Your task to perform on an android device: What's on my calendar tomorrow? Image 0: 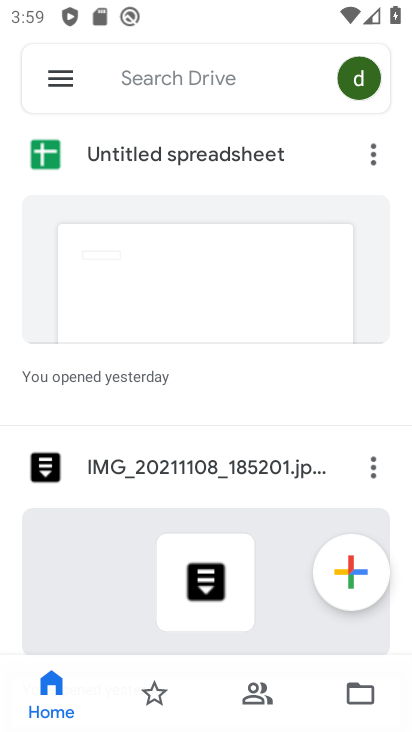
Step 0: press home button
Your task to perform on an android device: What's on my calendar tomorrow? Image 1: 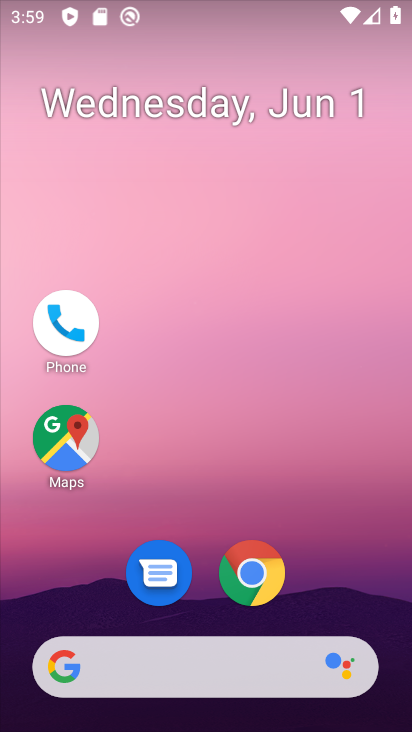
Step 1: click (222, 120)
Your task to perform on an android device: What's on my calendar tomorrow? Image 2: 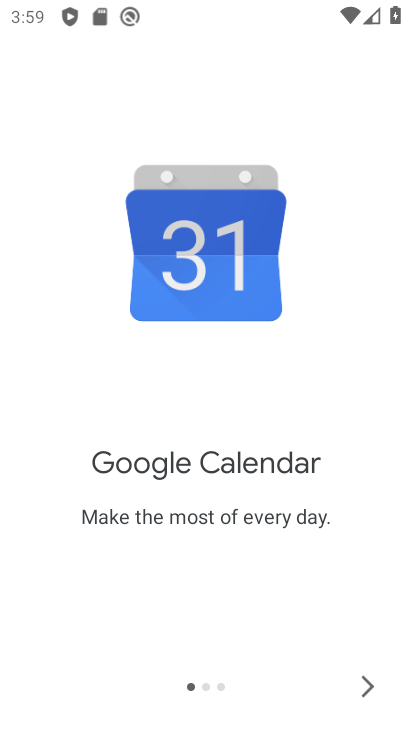
Step 2: click (374, 691)
Your task to perform on an android device: What's on my calendar tomorrow? Image 3: 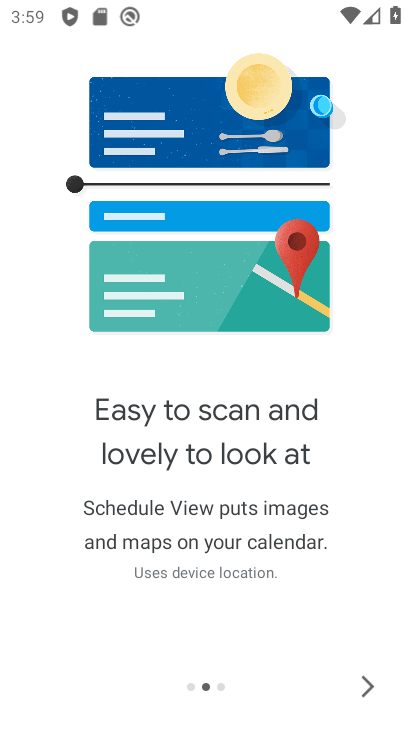
Step 3: click (374, 691)
Your task to perform on an android device: What's on my calendar tomorrow? Image 4: 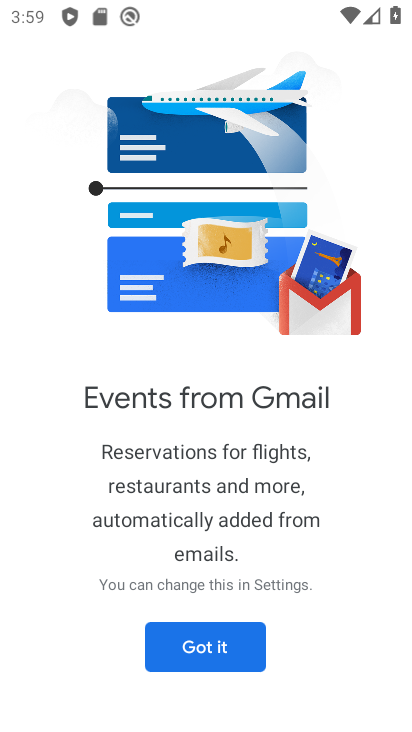
Step 4: click (216, 633)
Your task to perform on an android device: What's on my calendar tomorrow? Image 5: 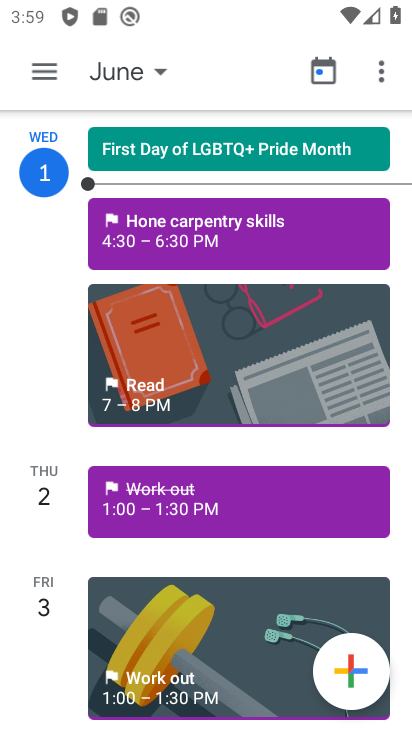
Step 5: click (103, 76)
Your task to perform on an android device: What's on my calendar tomorrow? Image 6: 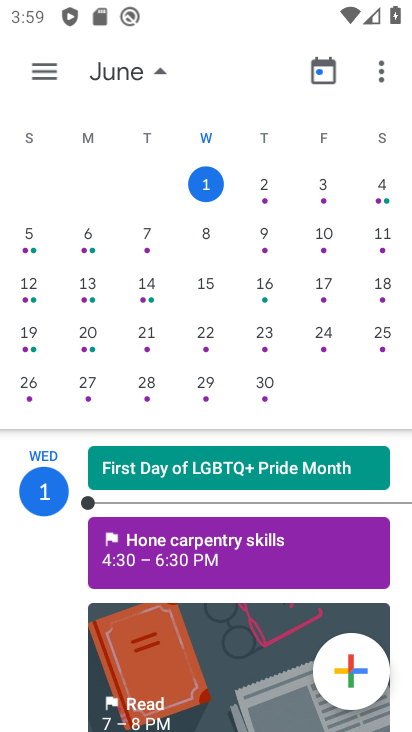
Step 6: click (265, 171)
Your task to perform on an android device: What's on my calendar tomorrow? Image 7: 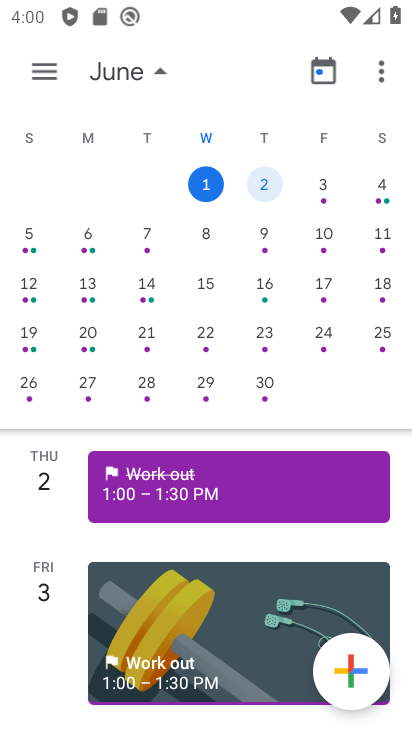
Step 7: click (270, 186)
Your task to perform on an android device: What's on my calendar tomorrow? Image 8: 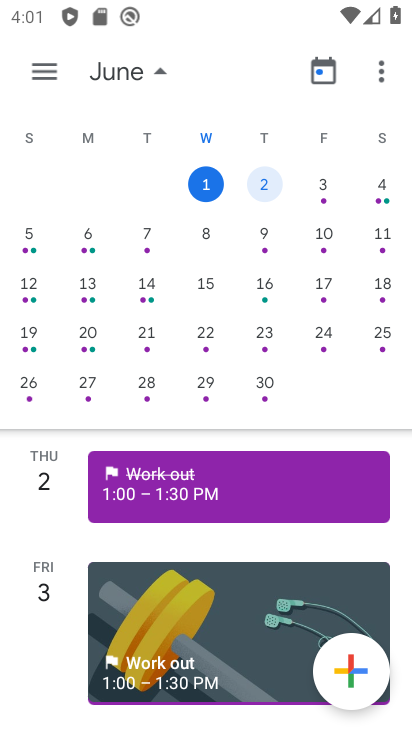
Step 8: task complete